Your task to perform on an android device: Search for a 3D printer on aliexpress. Image 0: 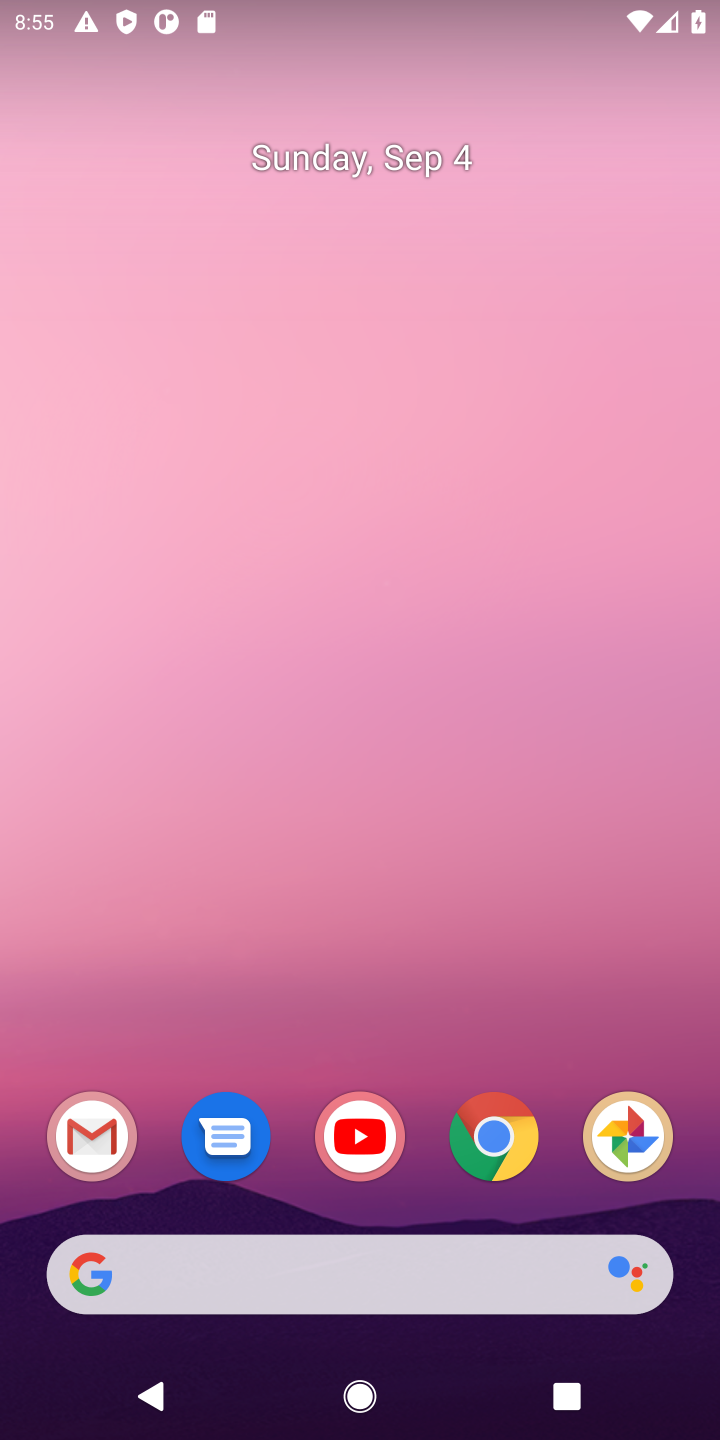
Step 0: click (398, 440)
Your task to perform on an android device: Search for a 3D printer on aliexpress. Image 1: 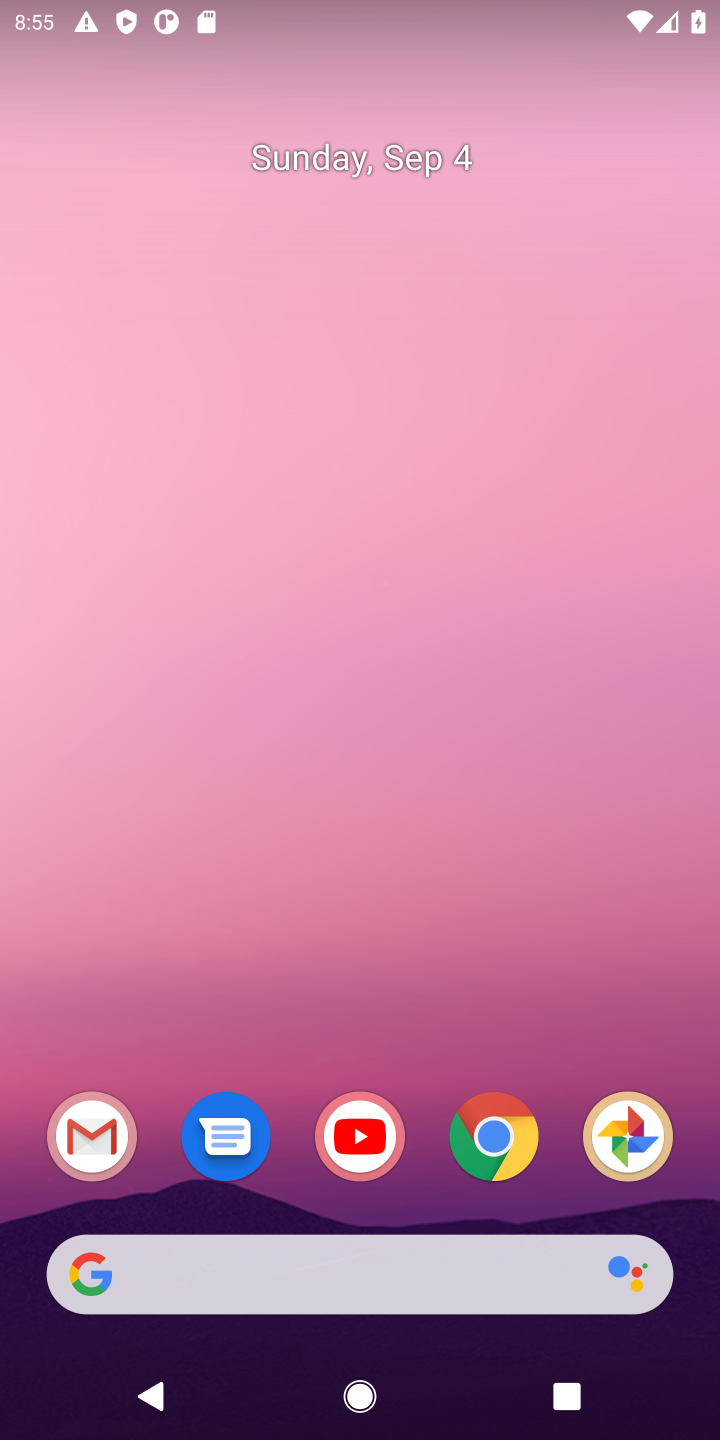
Step 1: drag from (384, 1115) to (364, 266)
Your task to perform on an android device: Search for a 3D printer on aliexpress. Image 2: 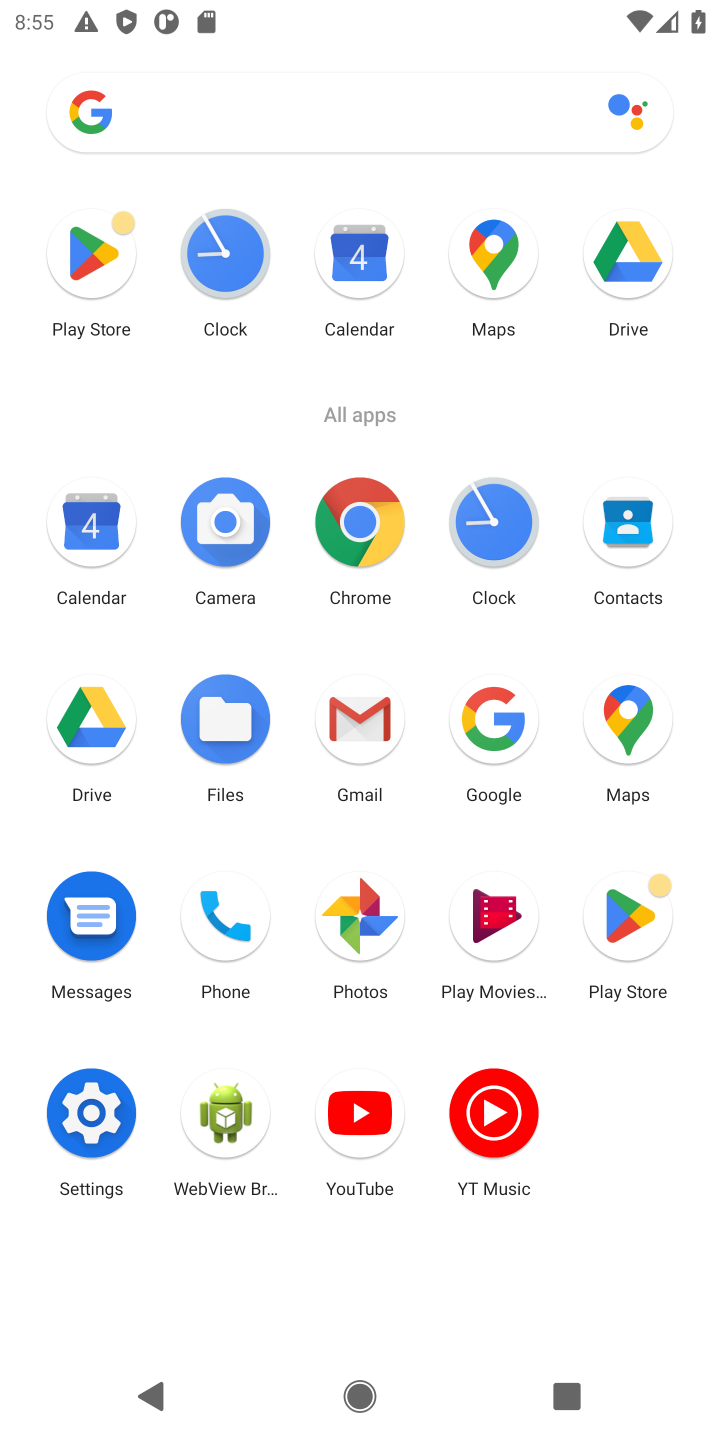
Step 2: click (494, 737)
Your task to perform on an android device: Search for a 3D printer on aliexpress. Image 3: 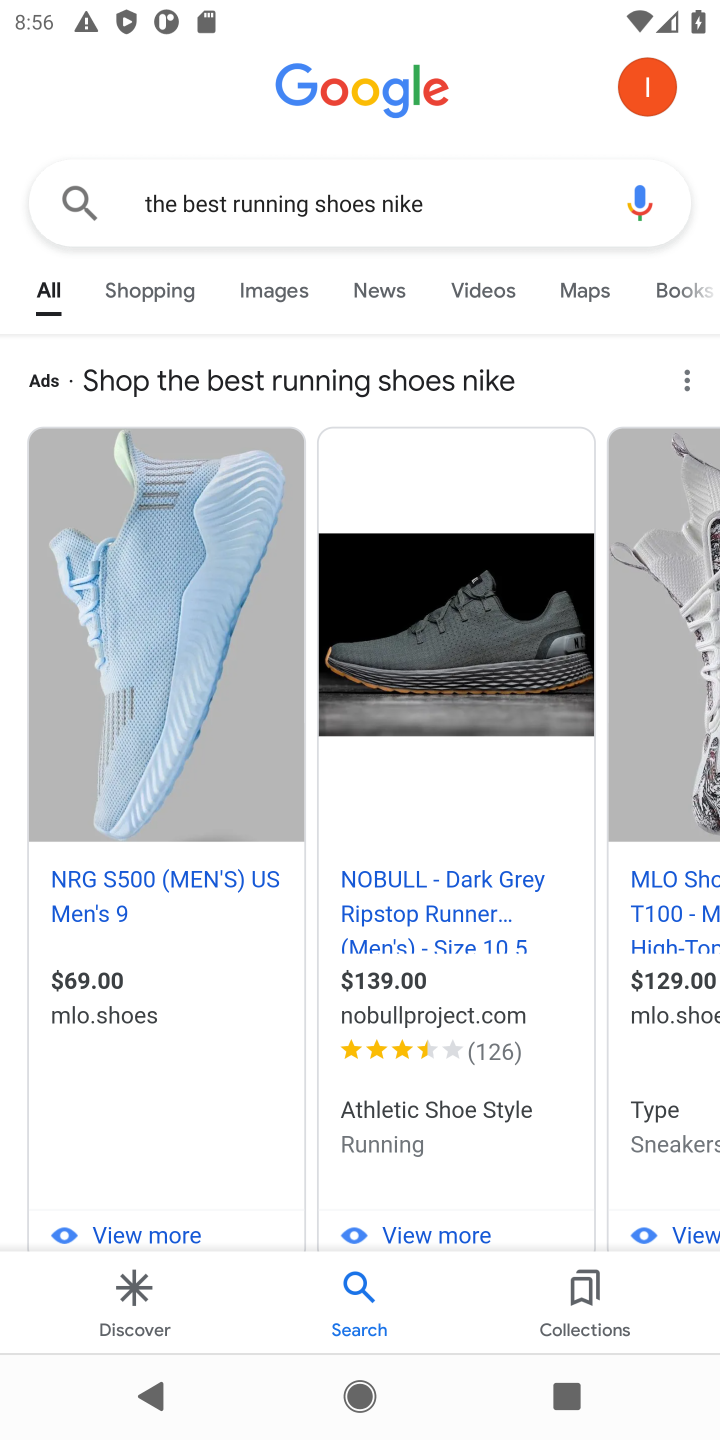
Step 3: click (434, 189)
Your task to perform on an android device: Search for a 3D printer on aliexpress. Image 4: 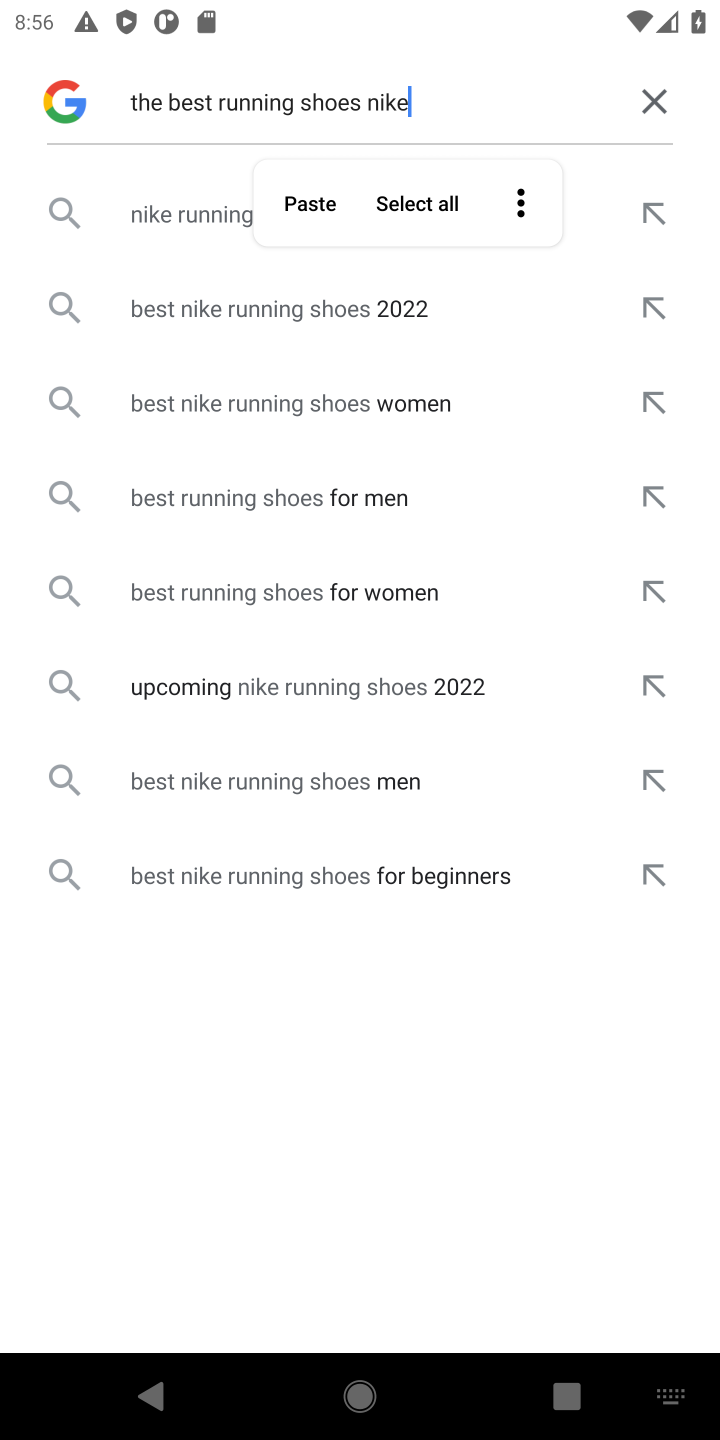
Step 4: click (656, 99)
Your task to perform on an android device: Search for a 3D printer on aliexpress. Image 5: 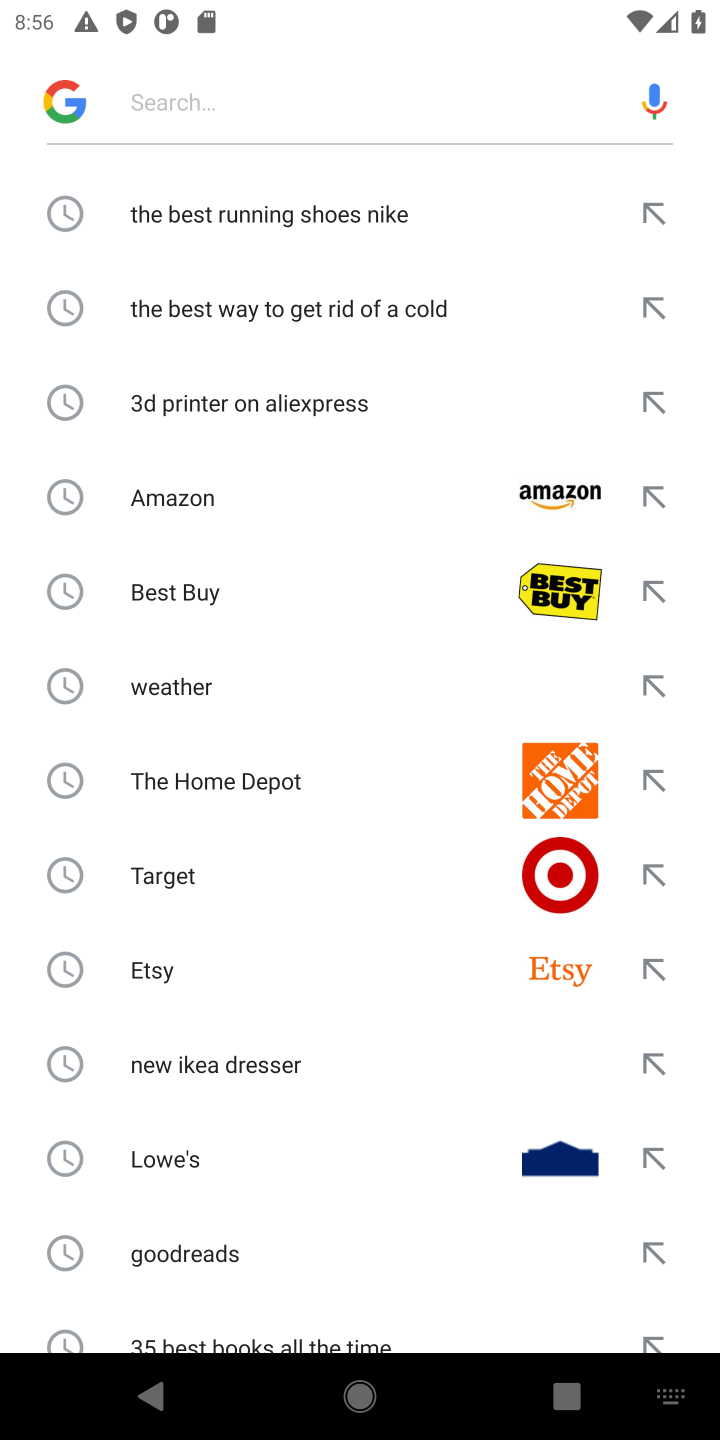
Step 5: click (270, 105)
Your task to perform on an android device: Search for a 3D printer on aliexpress. Image 6: 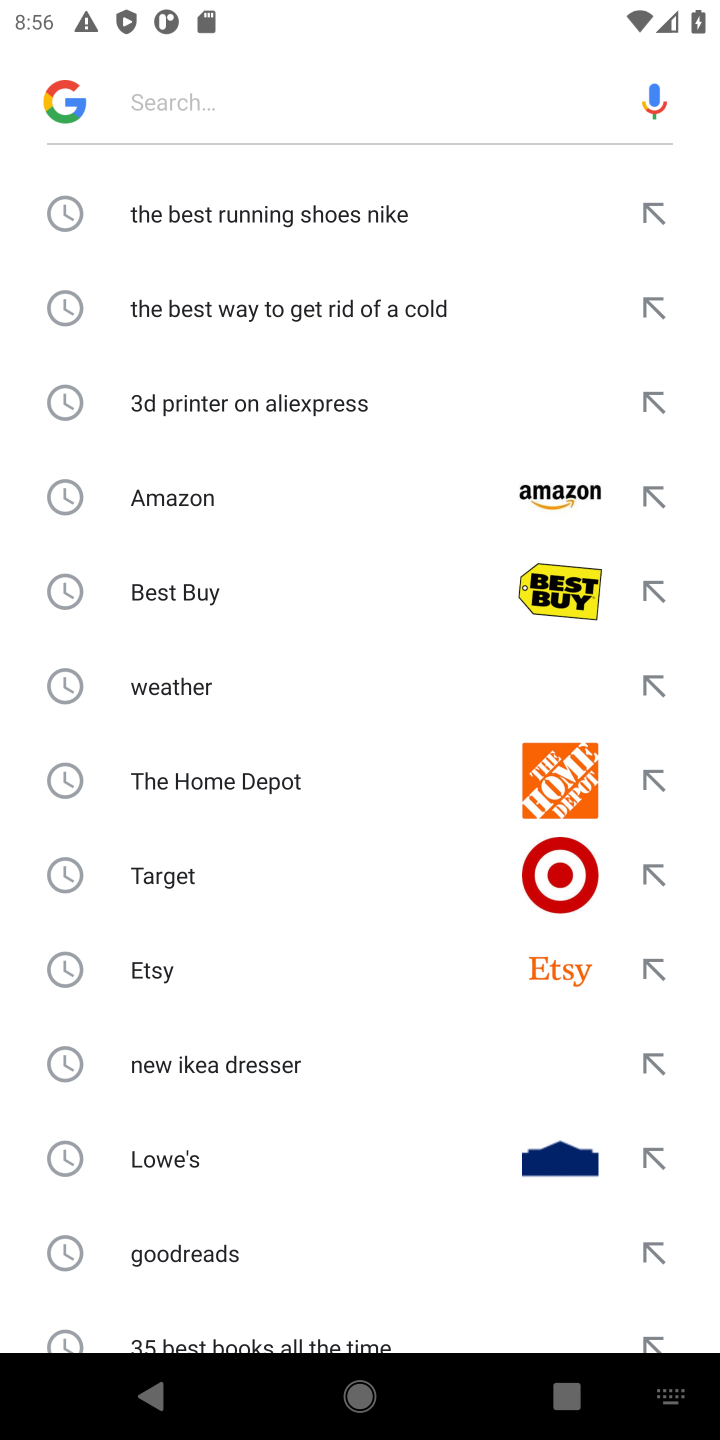
Step 6: type "3D printer on aliexpress"
Your task to perform on an android device: Search for a 3D printer on aliexpress. Image 7: 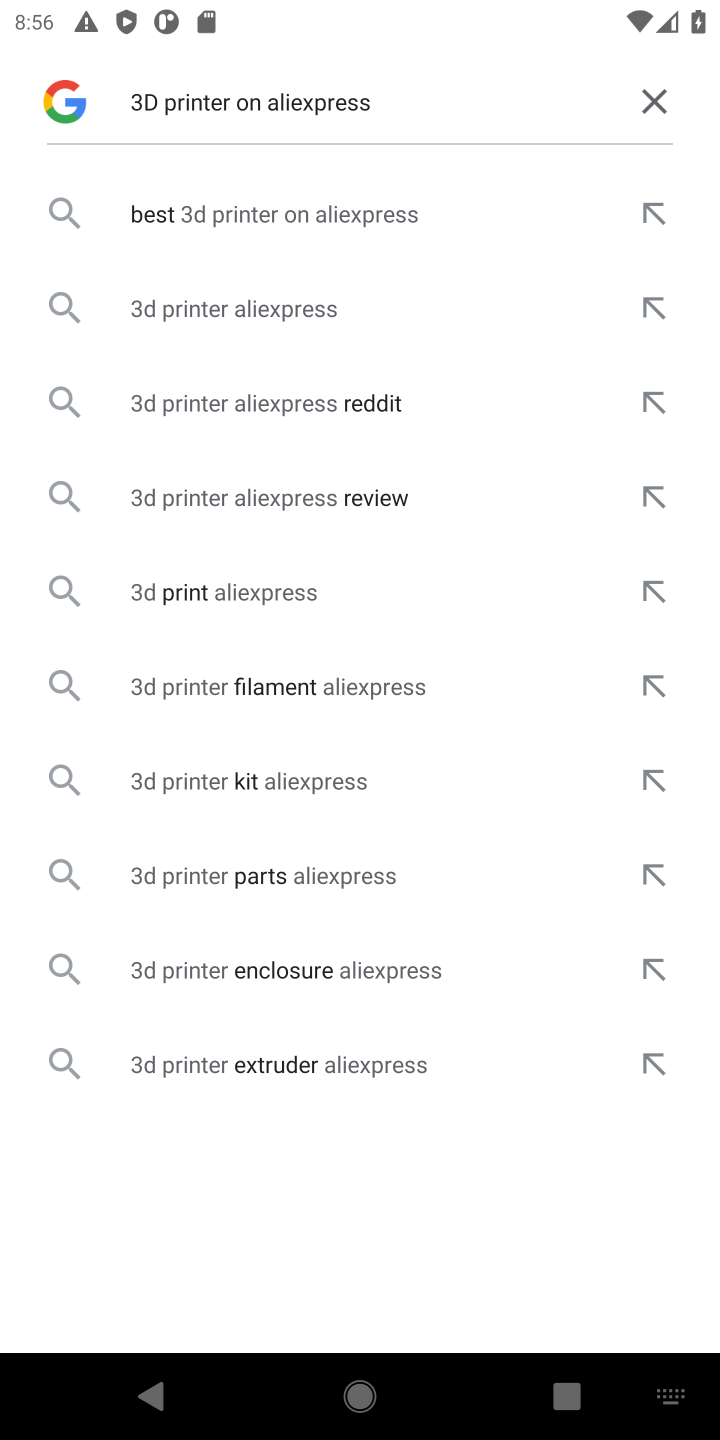
Step 7: click (387, 214)
Your task to perform on an android device: Search for a 3D printer on aliexpress. Image 8: 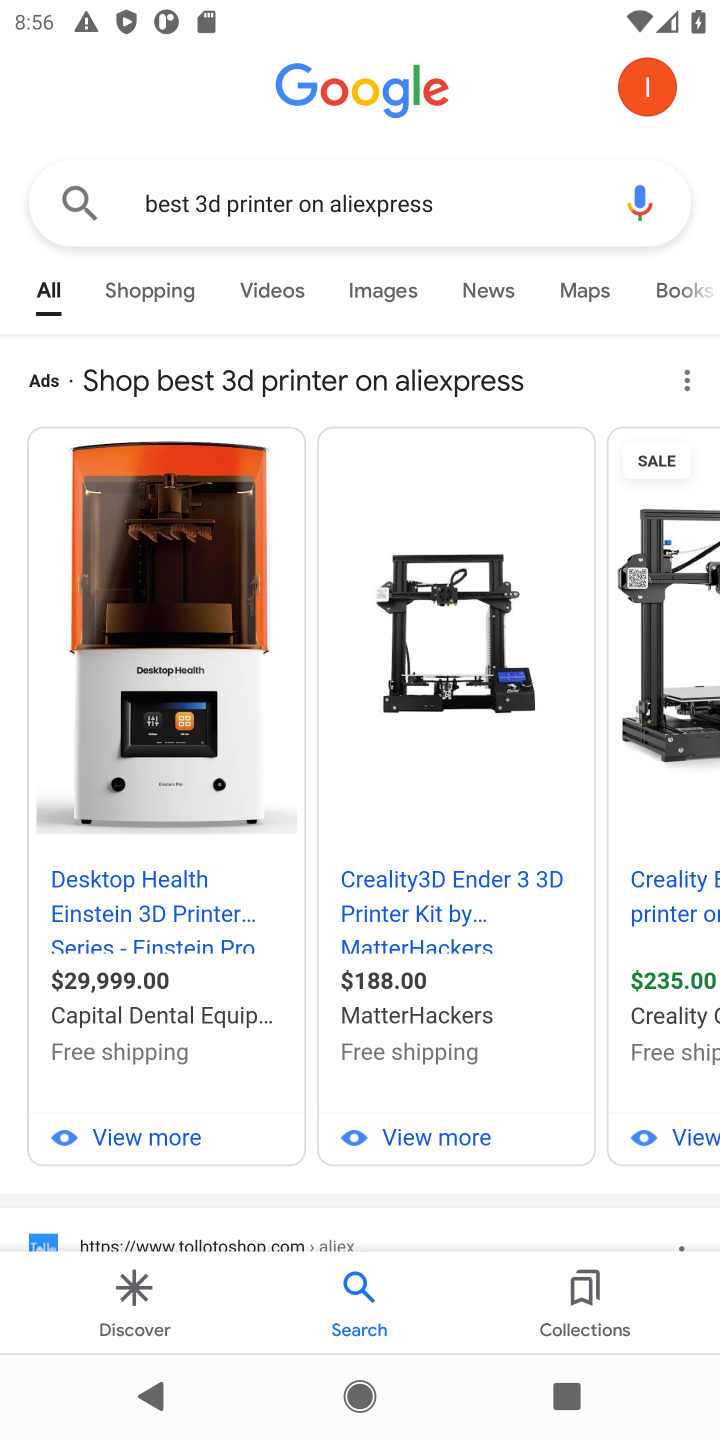
Step 8: task complete